Your task to perform on an android device: Open calendar and show me the first week of next month Image 0: 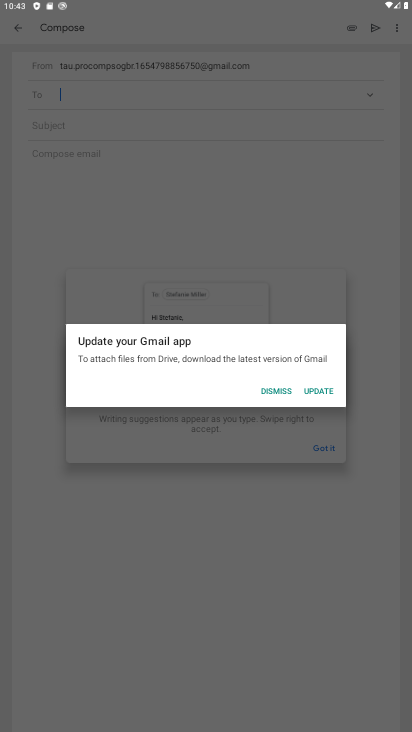
Step 0: press home button
Your task to perform on an android device: Open calendar and show me the first week of next month Image 1: 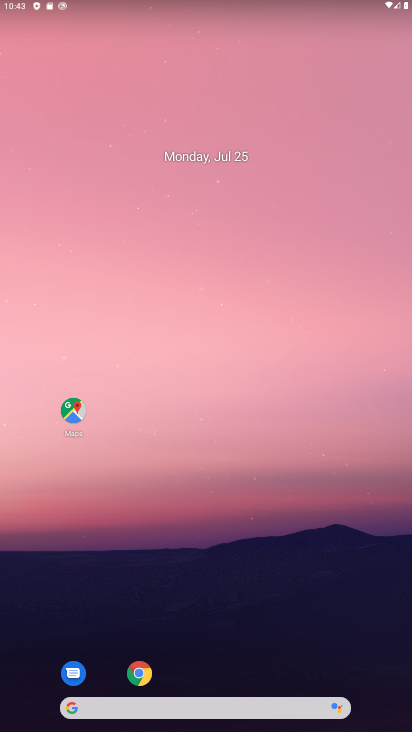
Step 1: drag from (198, 588) to (93, 91)
Your task to perform on an android device: Open calendar and show me the first week of next month Image 2: 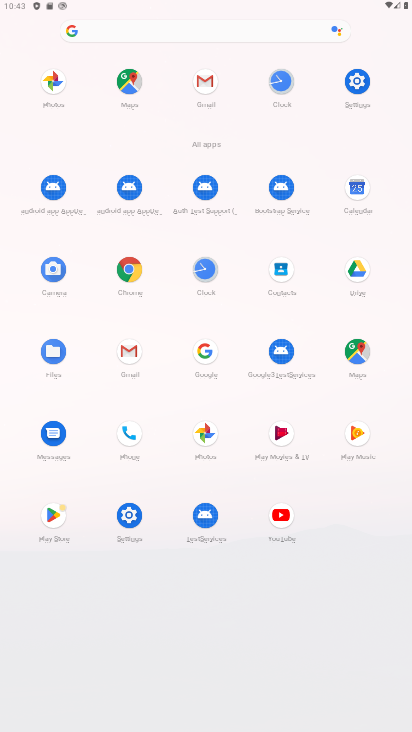
Step 2: click (362, 180)
Your task to perform on an android device: Open calendar and show me the first week of next month Image 3: 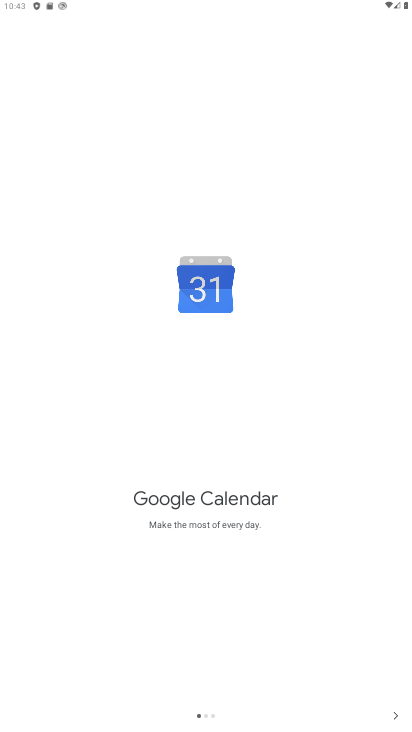
Step 3: click (391, 711)
Your task to perform on an android device: Open calendar and show me the first week of next month Image 4: 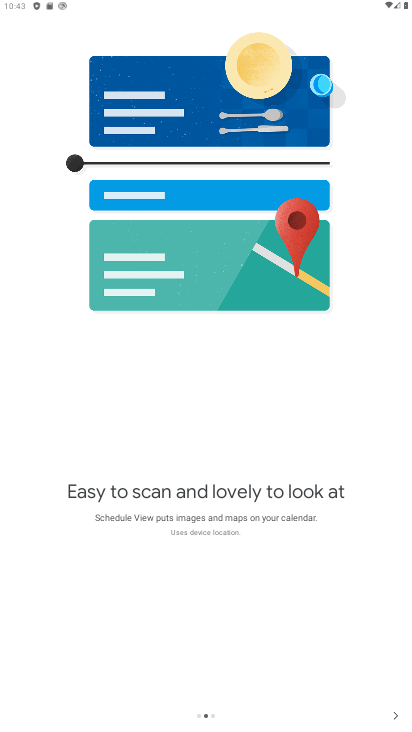
Step 4: click (394, 718)
Your task to perform on an android device: Open calendar and show me the first week of next month Image 5: 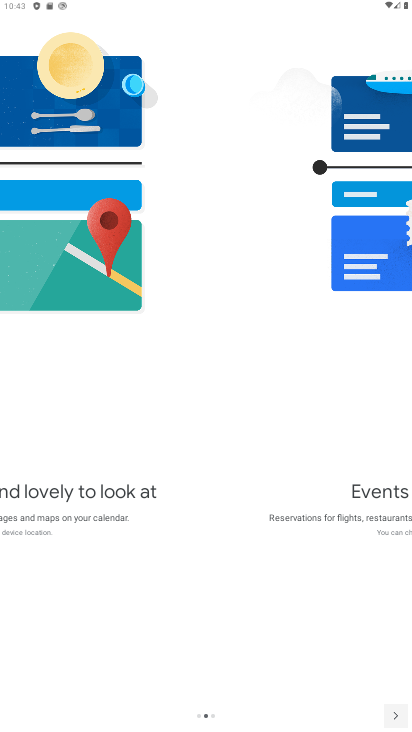
Step 5: click (394, 718)
Your task to perform on an android device: Open calendar and show me the first week of next month Image 6: 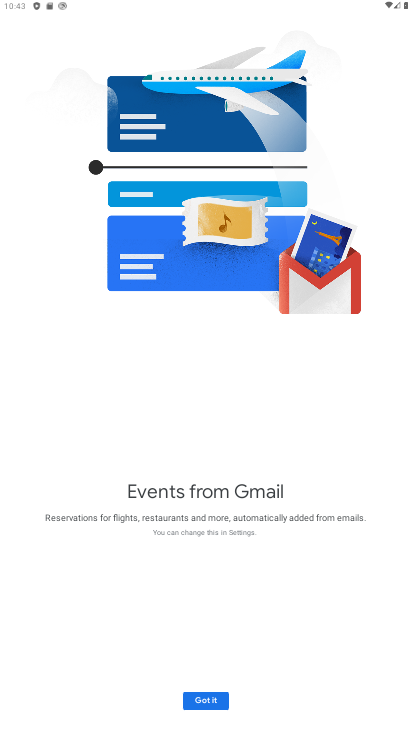
Step 6: click (222, 699)
Your task to perform on an android device: Open calendar and show me the first week of next month Image 7: 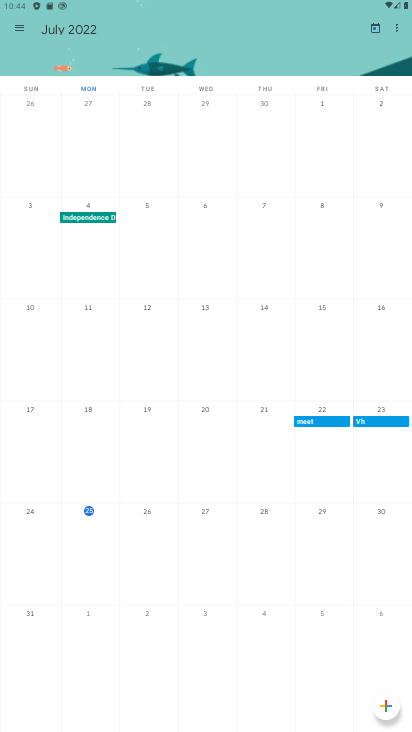
Step 7: click (19, 28)
Your task to perform on an android device: Open calendar and show me the first week of next month Image 8: 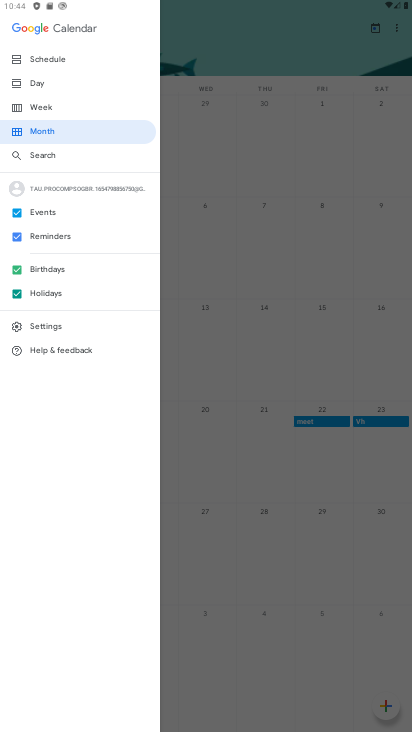
Step 8: click (42, 112)
Your task to perform on an android device: Open calendar and show me the first week of next month Image 9: 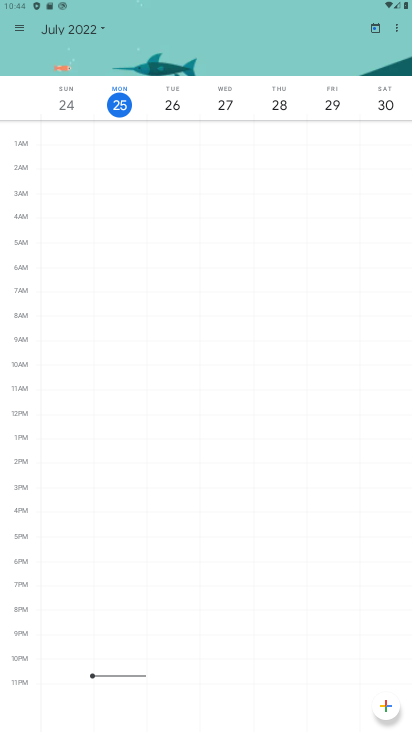
Step 9: task complete